Your task to perform on an android device: Search for pizza restaurants on Maps Image 0: 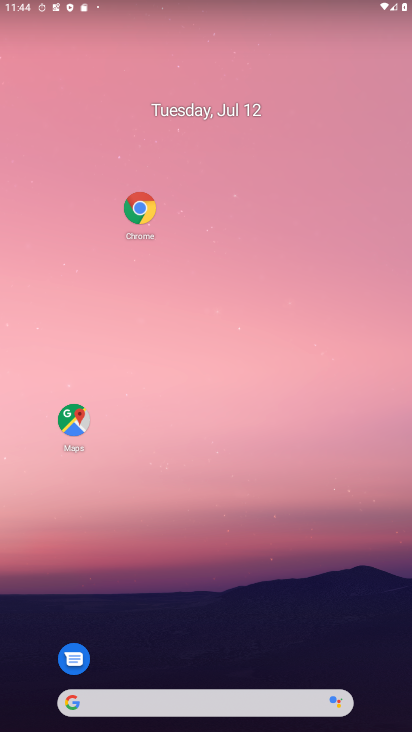
Step 0: drag from (237, 689) to (275, 6)
Your task to perform on an android device: Search for pizza restaurants on Maps Image 1: 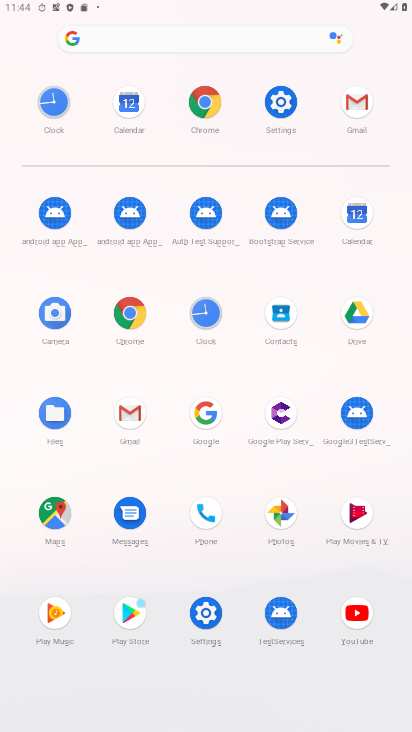
Step 1: click (55, 515)
Your task to perform on an android device: Search for pizza restaurants on Maps Image 2: 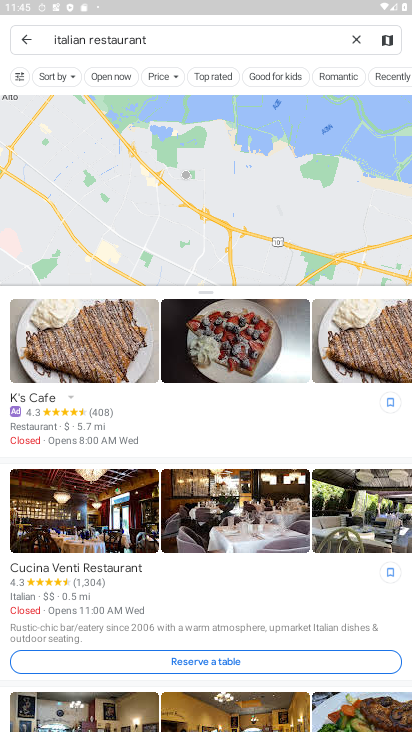
Step 2: click (359, 37)
Your task to perform on an android device: Search for pizza restaurants on Maps Image 3: 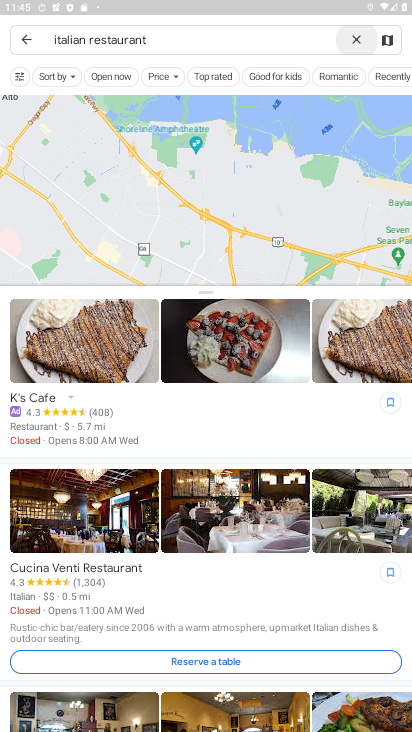
Step 3: click (352, 40)
Your task to perform on an android device: Search for pizza restaurants on Maps Image 4: 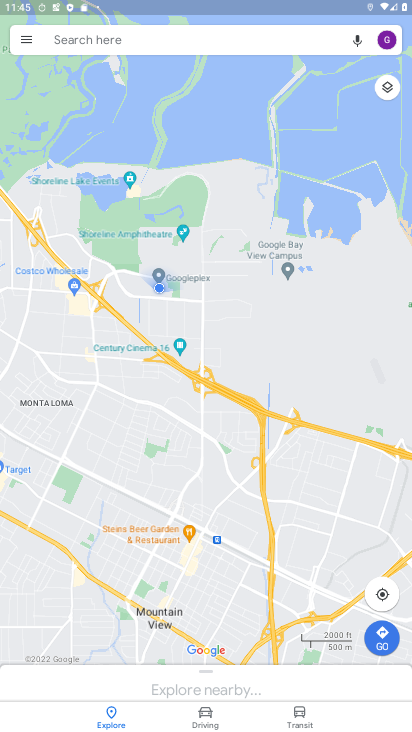
Step 4: click (271, 36)
Your task to perform on an android device: Search for pizza restaurants on Maps Image 5: 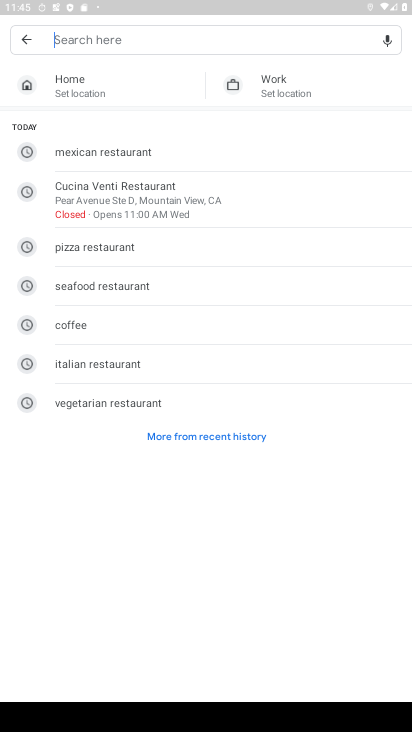
Step 5: type "pizza restaurant"
Your task to perform on an android device: Search for pizza restaurants on Maps Image 6: 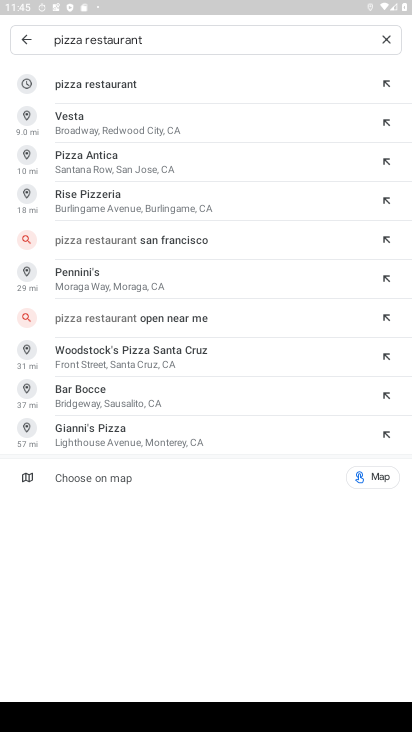
Step 6: click (130, 79)
Your task to perform on an android device: Search for pizza restaurants on Maps Image 7: 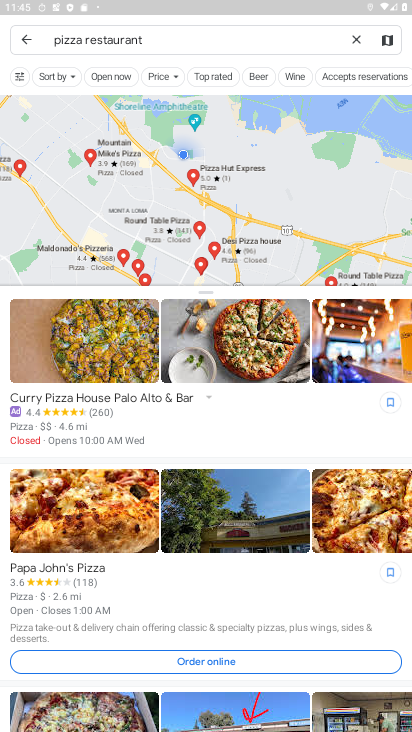
Step 7: task complete